Your task to perform on an android device: Open Youtube and go to the subscriptions tab Image 0: 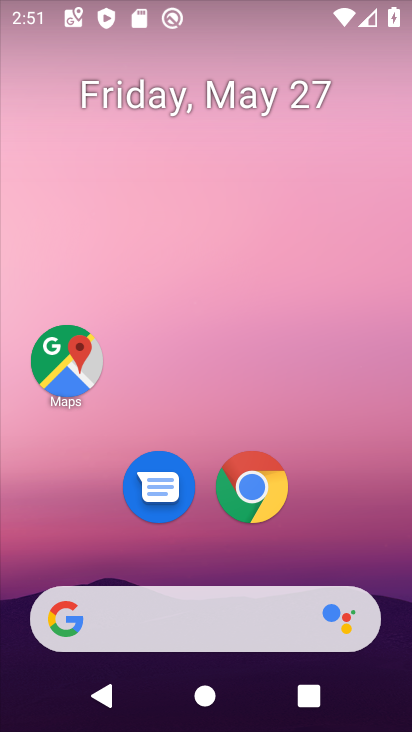
Step 0: drag from (166, 724) to (231, 69)
Your task to perform on an android device: Open Youtube and go to the subscriptions tab Image 1: 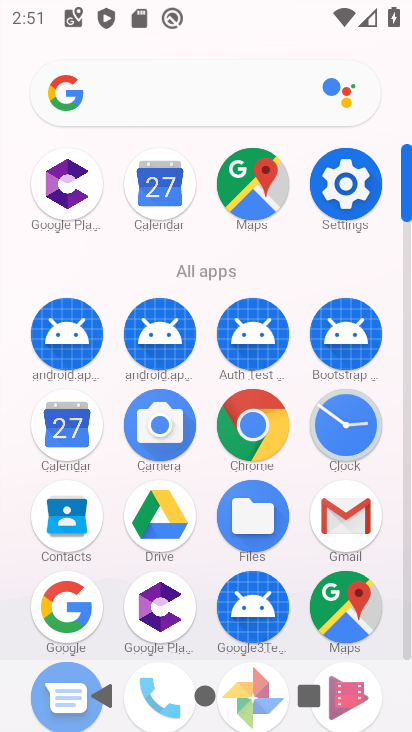
Step 1: drag from (106, 504) to (105, 100)
Your task to perform on an android device: Open Youtube and go to the subscriptions tab Image 2: 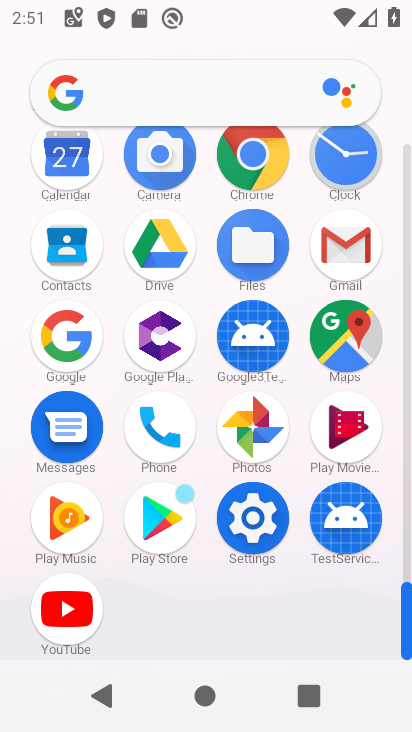
Step 2: click (55, 613)
Your task to perform on an android device: Open Youtube and go to the subscriptions tab Image 3: 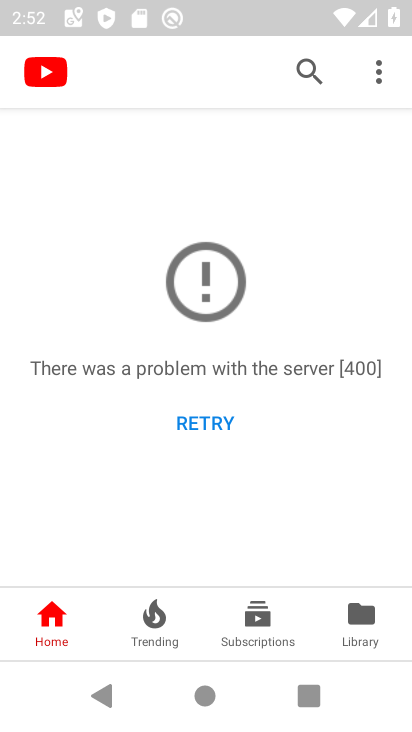
Step 3: click (245, 631)
Your task to perform on an android device: Open Youtube and go to the subscriptions tab Image 4: 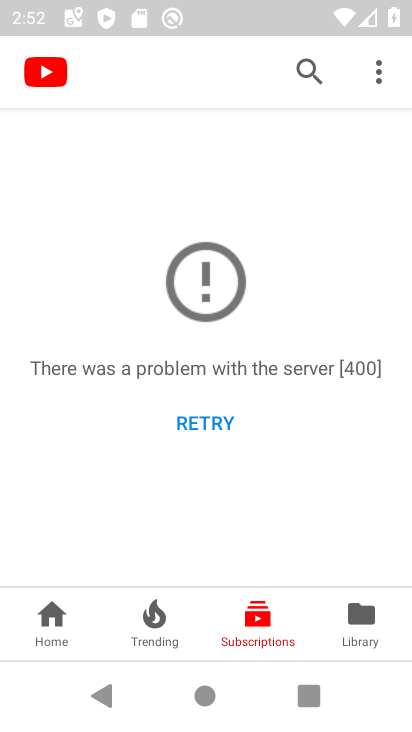
Step 4: task complete